Your task to perform on an android device: Open Google Maps Image 0: 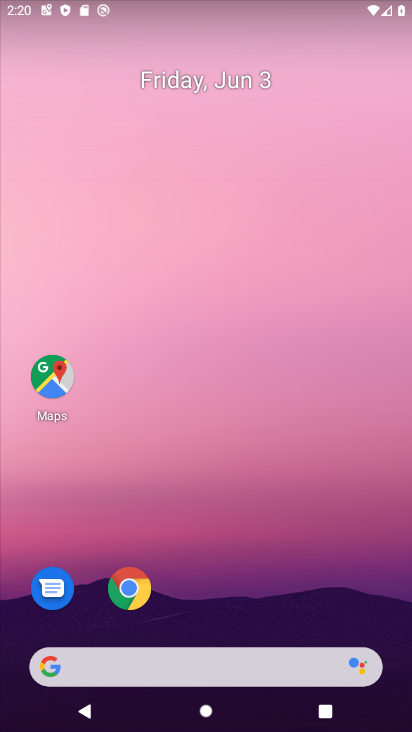
Step 0: drag from (235, 592) to (227, 167)
Your task to perform on an android device: Open Google Maps Image 1: 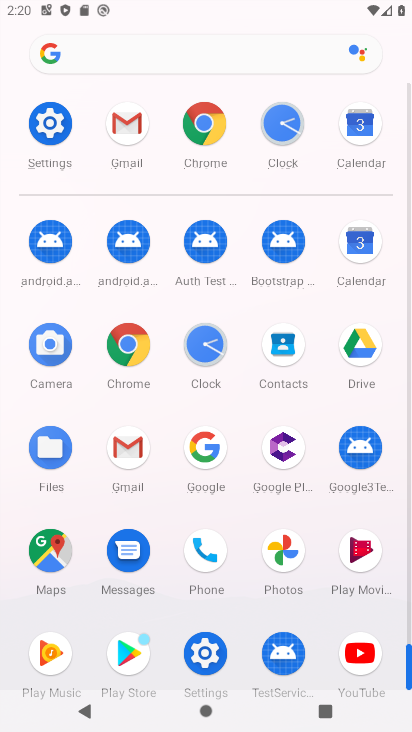
Step 1: drag from (169, 205) to (169, 61)
Your task to perform on an android device: Open Google Maps Image 2: 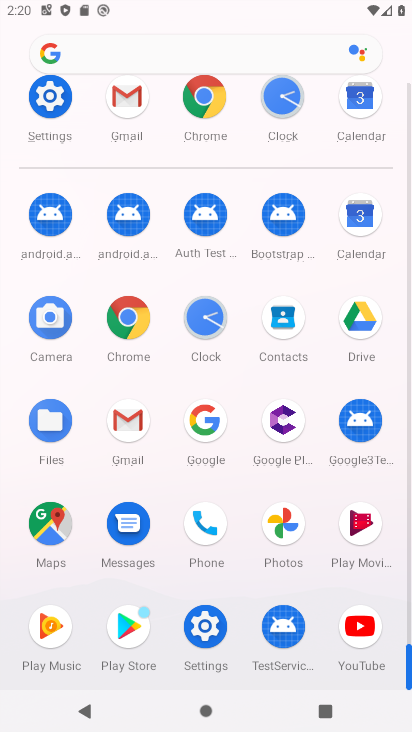
Step 2: click (58, 534)
Your task to perform on an android device: Open Google Maps Image 3: 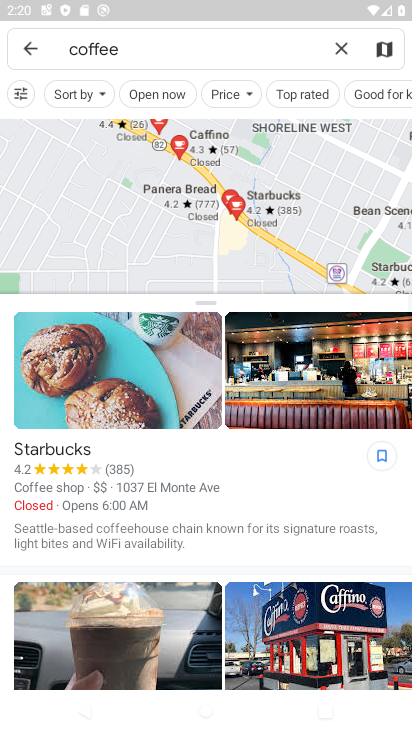
Step 3: task complete